Your task to perform on an android device: Do I have any events today? Image 0: 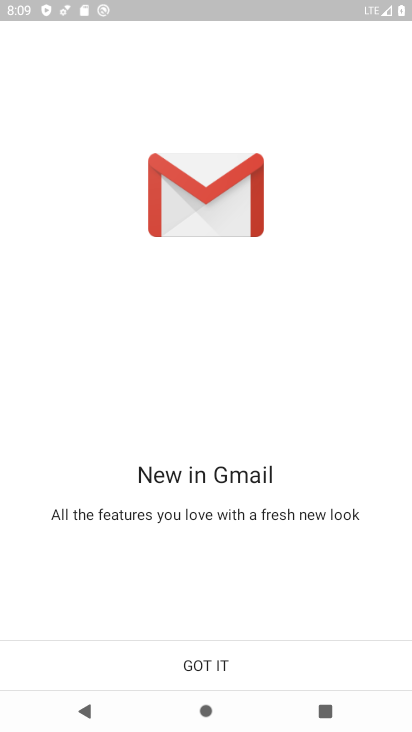
Step 0: click (219, 652)
Your task to perform on an android device: Do I have any events today? Image 1: 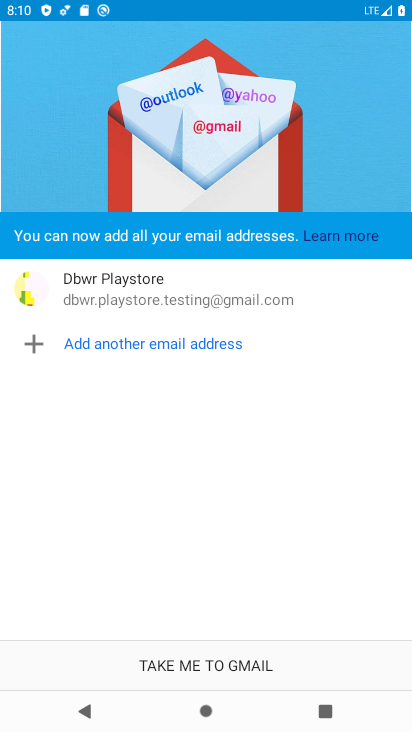
Step 1: press back button
Your task to perform on an android device: Do I have any events today? Image 2: 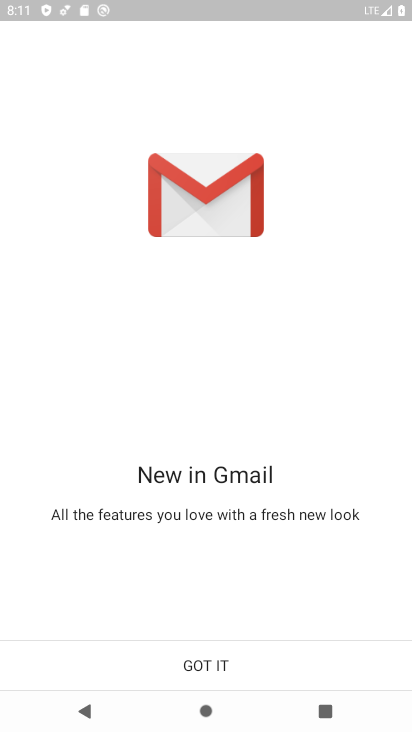
Step 2: press back button
Your task to perform on an android device: Do I have any events today? Image 3: 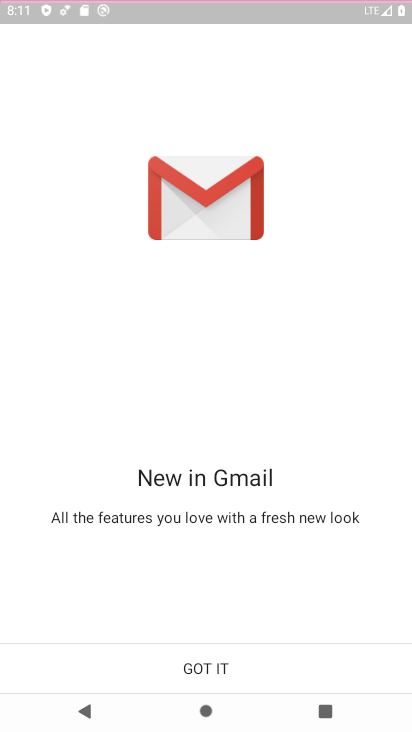
Step 3: press back button
Your task to perform on an android device: Do I have any events today? Image 4: 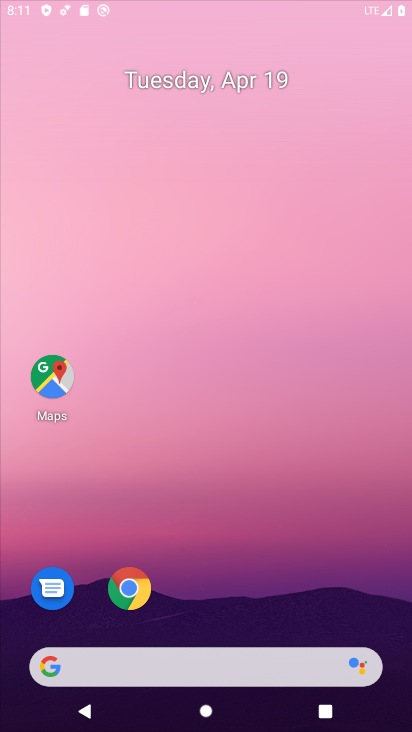
Step 4: press back button
Your task to perform on an android device: Do I have any events today? Image 5: 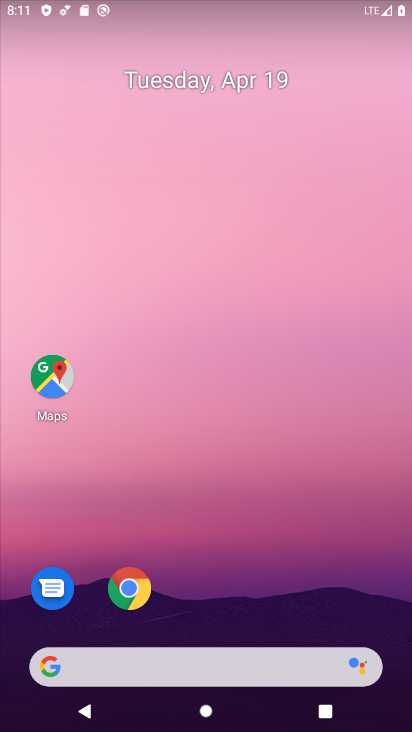
Step 5: drag from (274, 577) to (202, 176)
Your task to perform on an android device: Do I have any events today? Image 6: 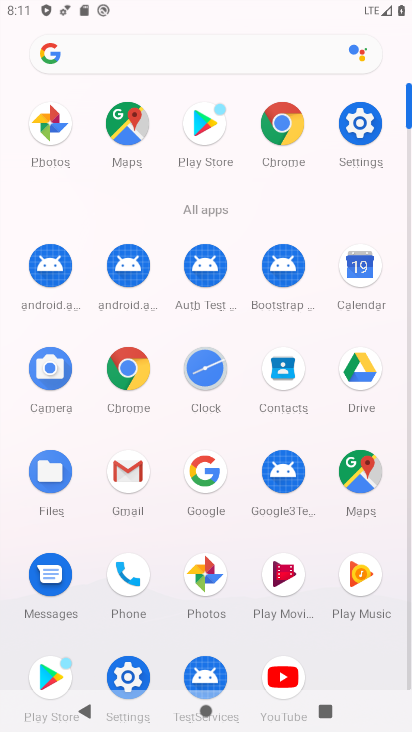
Step 6: click (362, 291)
Your task to perform on an android device: Do I have any events today? Image 7: 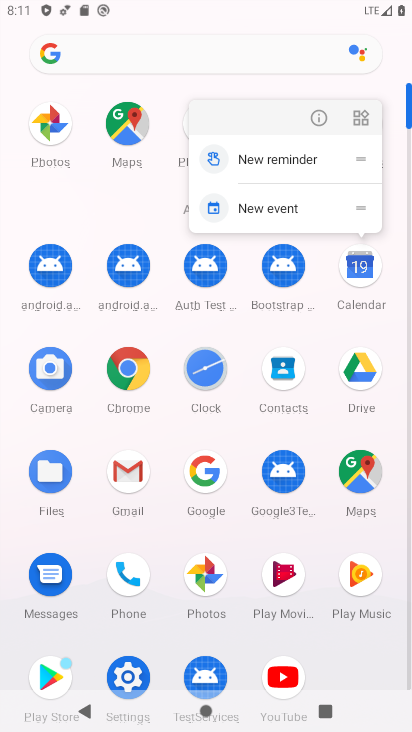
Step 7: click (91, 212)
Your task to perform on an android device: Do I have any events today? Image 8: 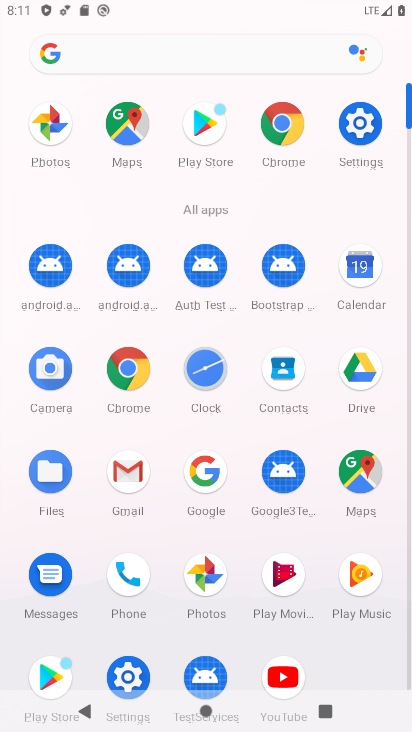
Step 8: click (349, 276)
Your task to perform on an android device: Do I have any events today? Image 9: 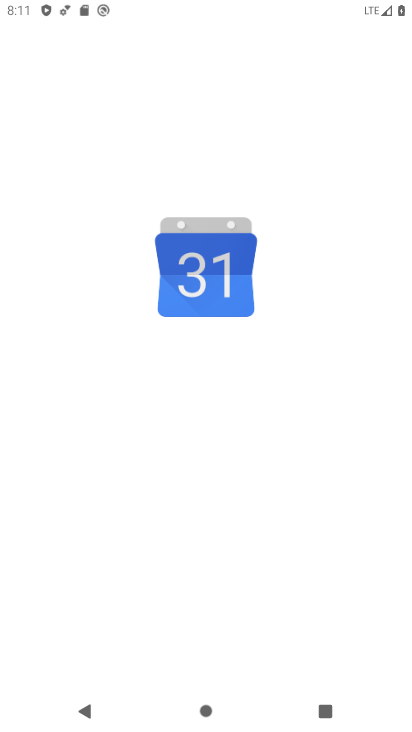
Step 9: click (349, 276)
Your task to perform on an android device: Do I have any events today? Image 10: 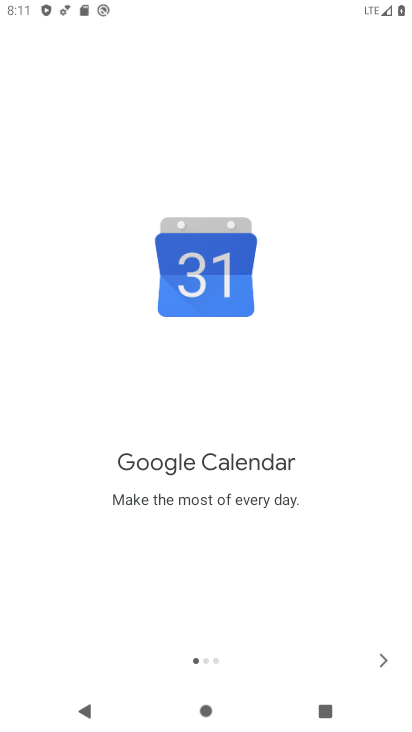
Step 10: click (383, 669)
Your task to perform on an android device: Do I have any events today? Image 11: 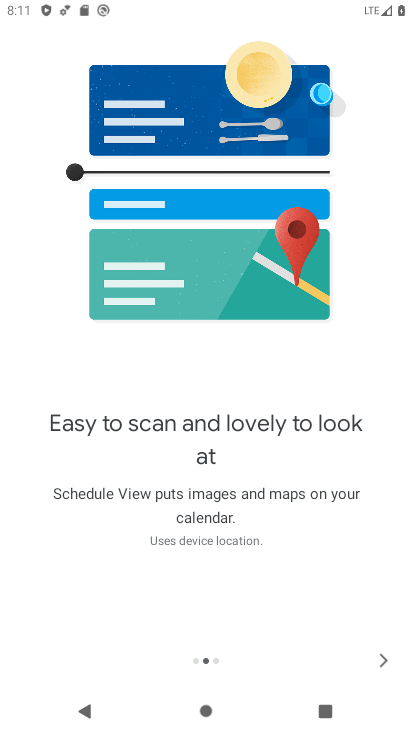
Step 11: click (383, 669)
Your task to perform on an android device: Do I have any events today? Image 12: 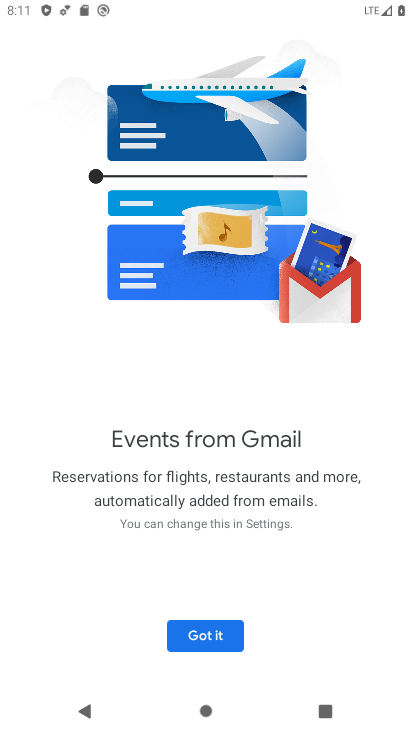
Step 12: click (222, 639)
Your task to perform on an android device: Do I have any events today? Image 13: 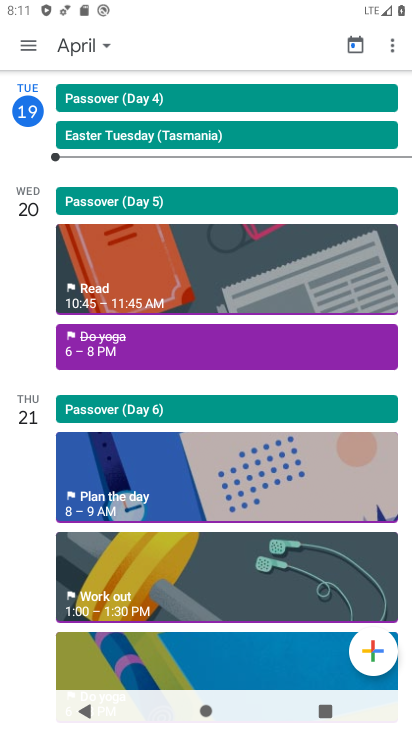
Step 13: click (25, 216)
Your task to perform on an android device: Do I have any events today? Image 14: 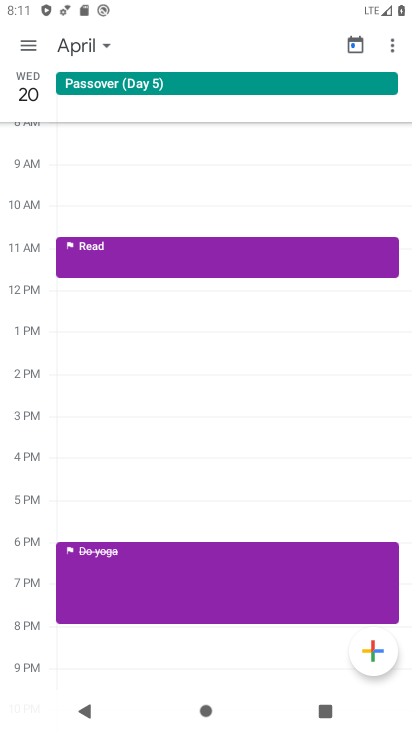
Step 14: task complete